Your task to perform on an android device: toggle location history Image 0: 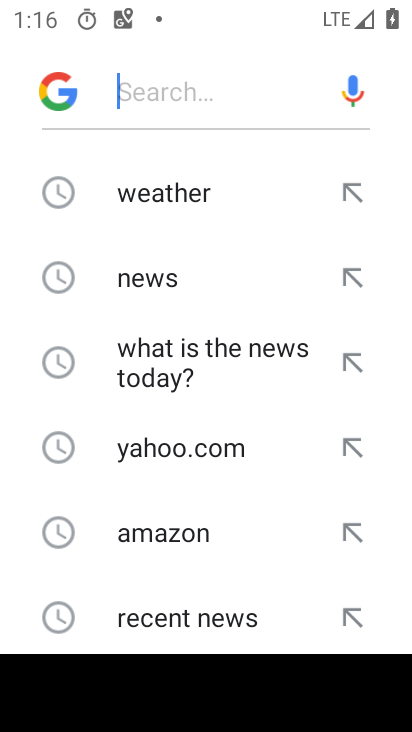
Step 0: press home button
Your task to perform on an android device: toggle location history Image 1: 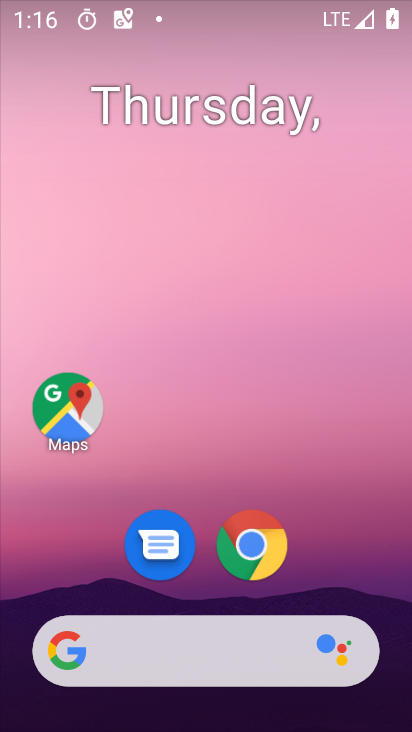
Step 1: drag from (391, 666) to (367, 19)
Your task to perform on an android device: toggle location history Image 2: 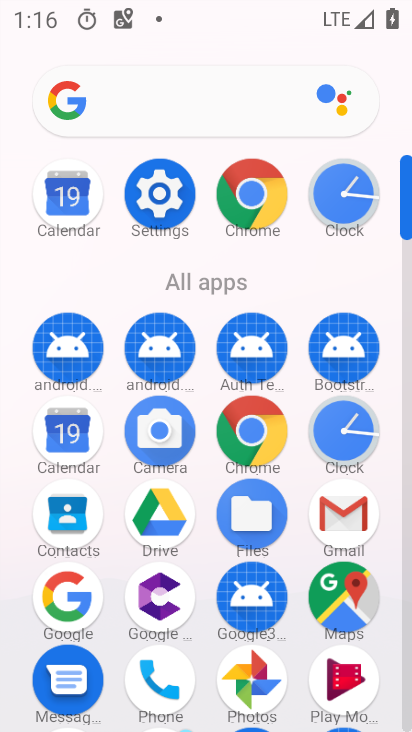
Step 2: click (162, 205)
Your task to perform on an android device: toggle location history Image 3: 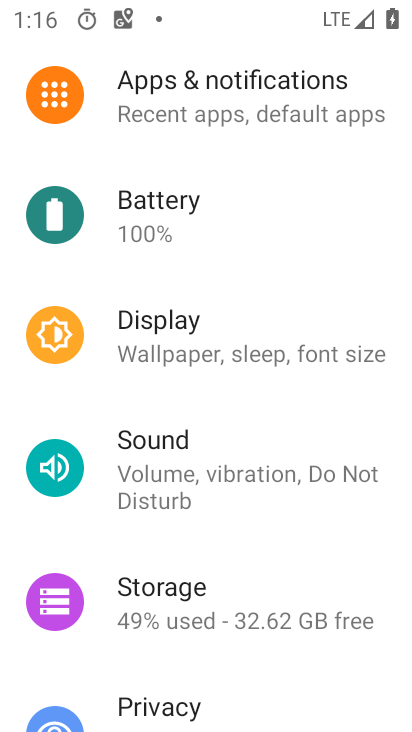
Step 3: drag from (271, 672) to (283, 116)
Your task to perform on an android device: toggle location history Image 4: 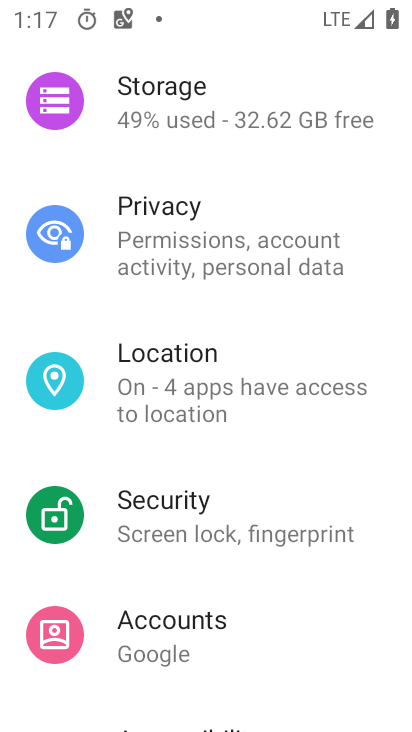
Step 4: click (245, 381)
Your task to perform on an android device: toggle location history Image 5: 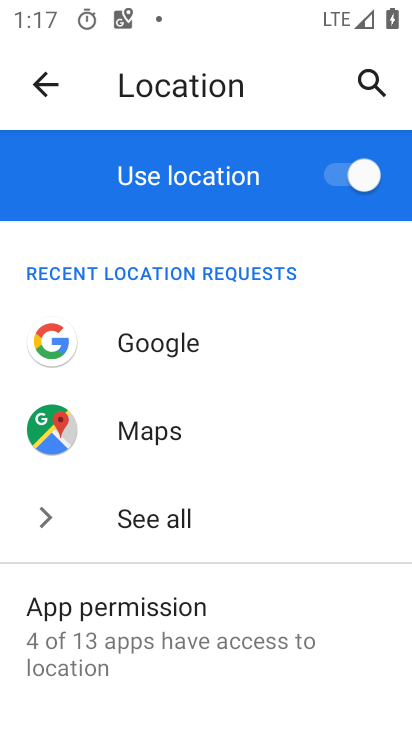
Step 5: drag from (222, 675) to (266, 126)
Your task to perform on an android device: toggle location history Image 6: 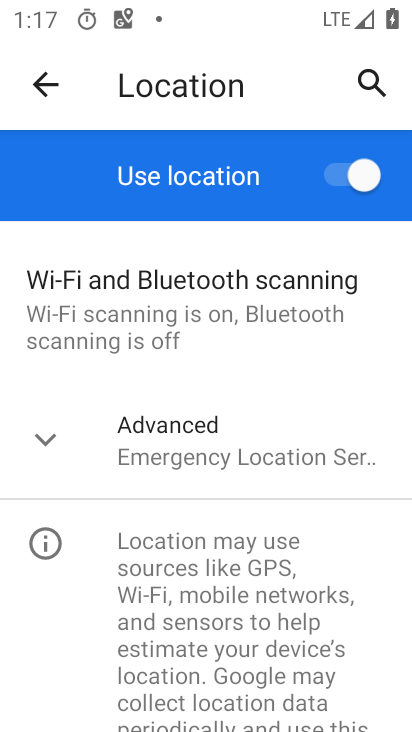
Step 6: click (198, 447)
Your task to perform on an android device: toggle location history Image 7: 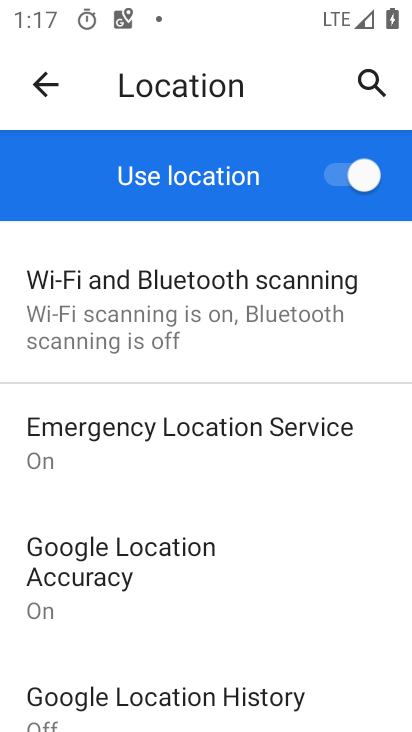
Step 7: click (208, 699)
Your task to perform on an android device: toggle location history Image 8: 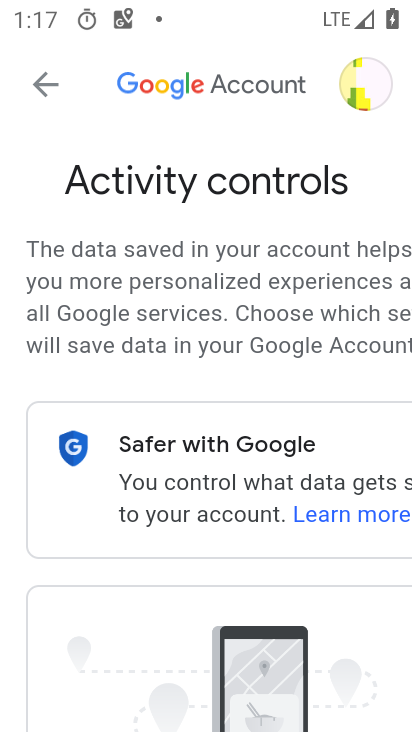
Step 8: drag from (325, 649) to (262, 1)
Your task to perform on an android device: toggle location history Image 9: 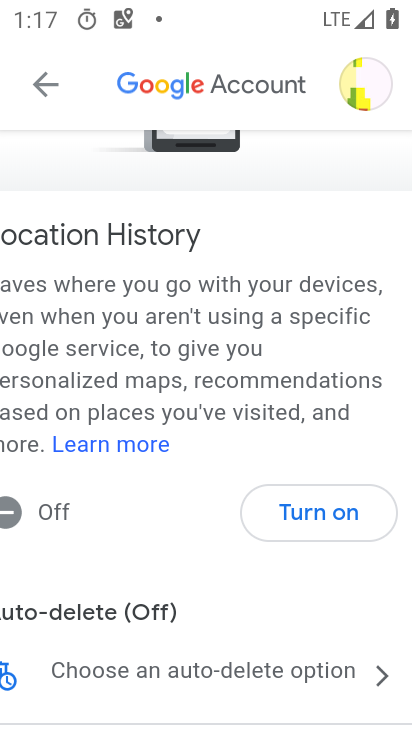
Step 9: click (315, 509)
Your task to perform on an android device: toggle location history Image 10: 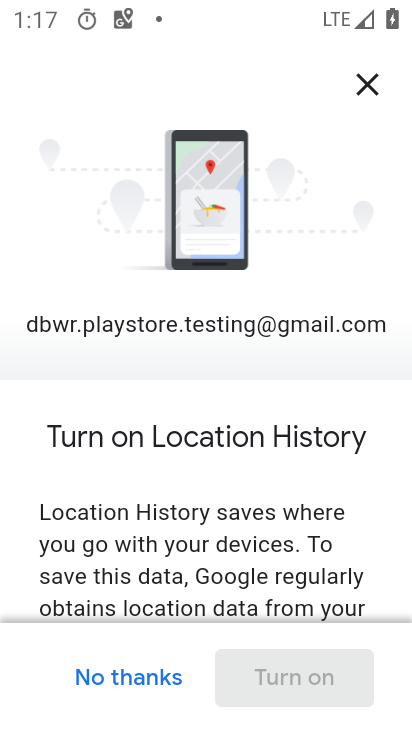
Step 10: drag from (298, 561) to (302, 50)
Your task to perform on an android device: toggle location history Image 11: 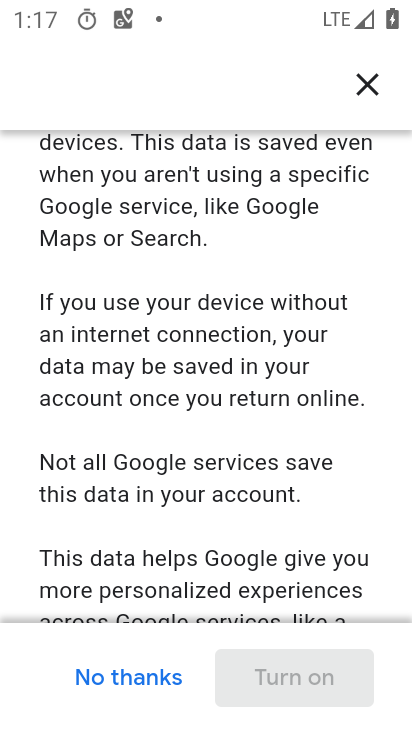
Step 11: drag from (272, 578) to (281, 172)
Your task to perform on an android device: toggle location history Image 12: 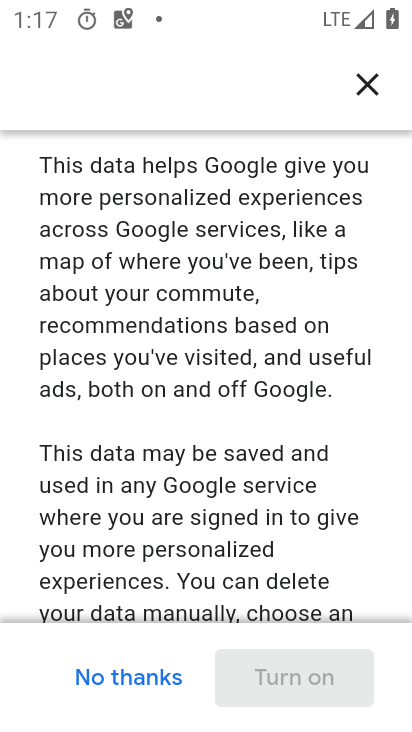
Step 12: drag from (281, 586) to (295, 69)
Your task to perform on an android device: toggle location history Image 13: 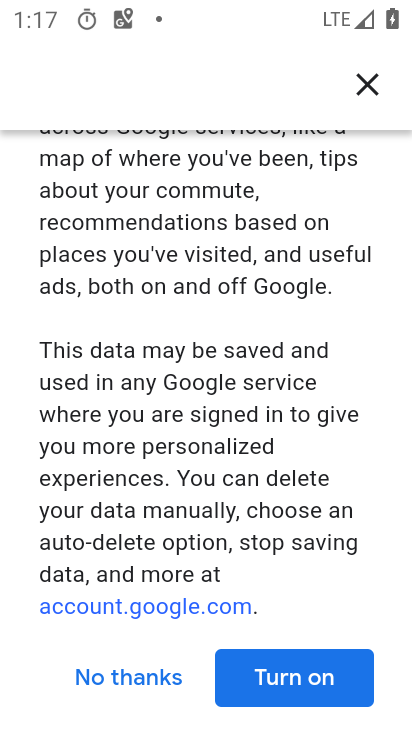
Step 13: click (275, 679)
Your task to perform on an android device: toggle location history Image 14: 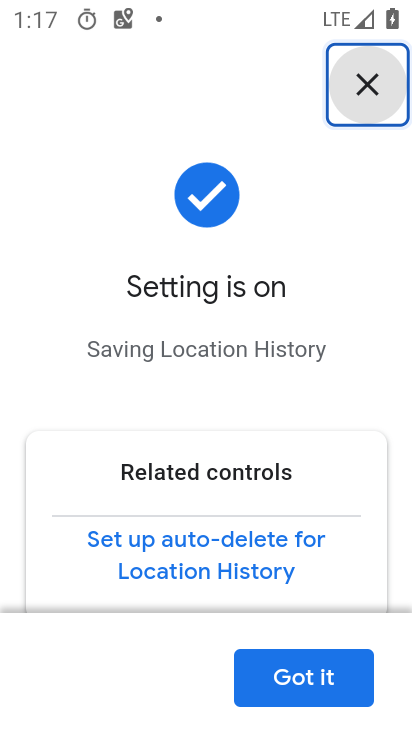
Step 14: task complete